Your task to perform on an android device: Open Android settings Image 0: 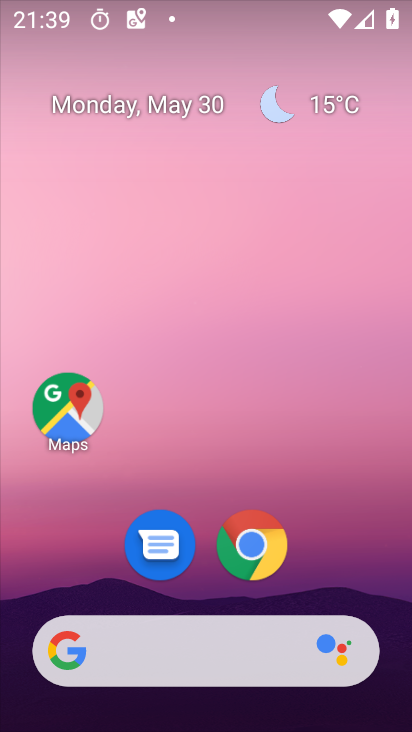
Step 0: drag from (322, 570) to (311, 73)
Your task to perform on an android device: Open Android settings Image 1: 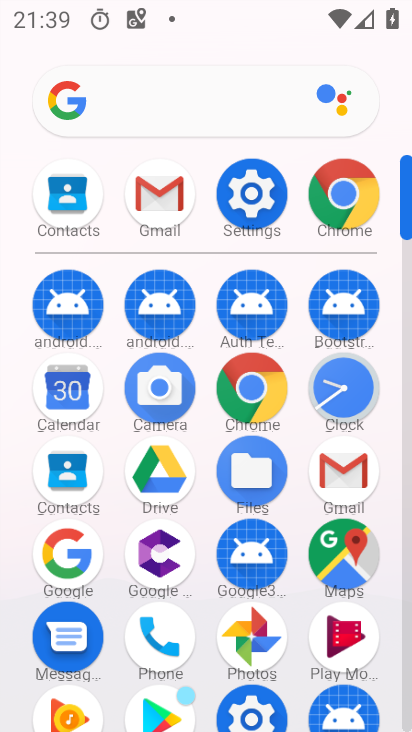
Step 1: click (255, 202)
Your task to perform on an android device: Open Android settings Image 2: 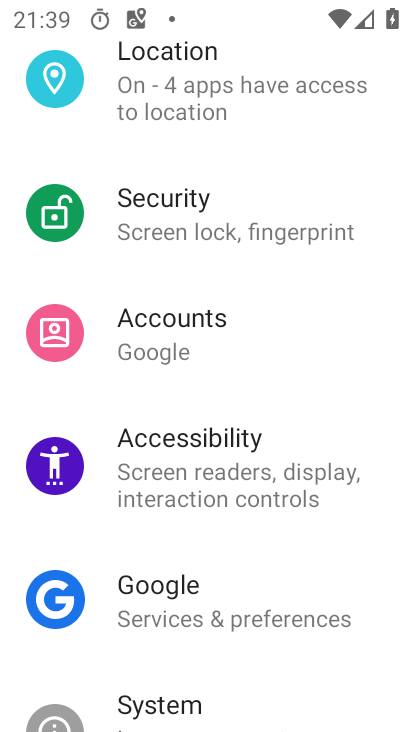
Step 2: drag from (319, 673) to (289, 347)
Your task to perform on an android device: Open Android settings Image 3: 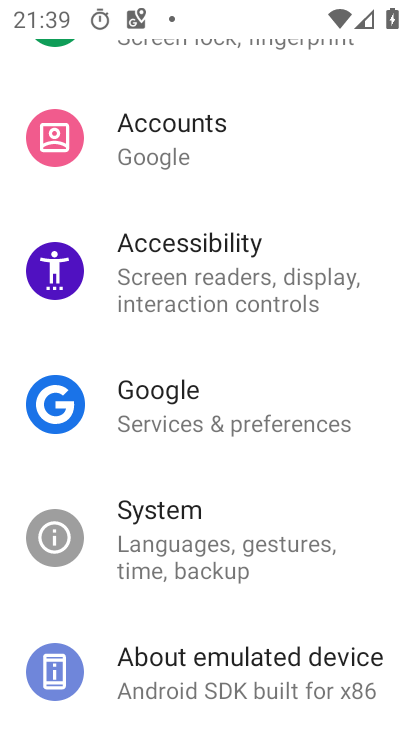
Step 3: click (234, 671)
Your task to perform on an android device: Open Android settings Image 4: 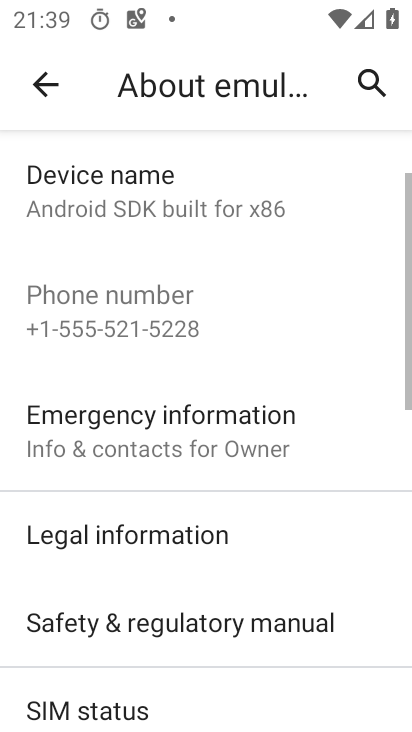
Step 4: drag from (265, 652) to (237, 276)
Your task to perform on an android device: Open Android settings Image 5: 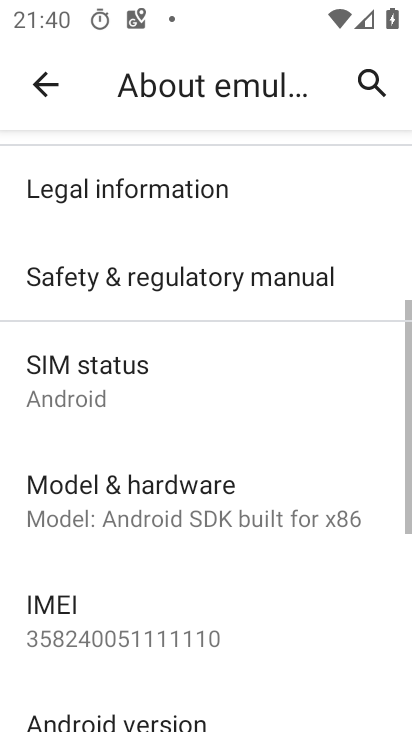
Step 5: drag from (215, 694) to (213, 466)
Your task to perform on an android device: Open Android settings Image 6: 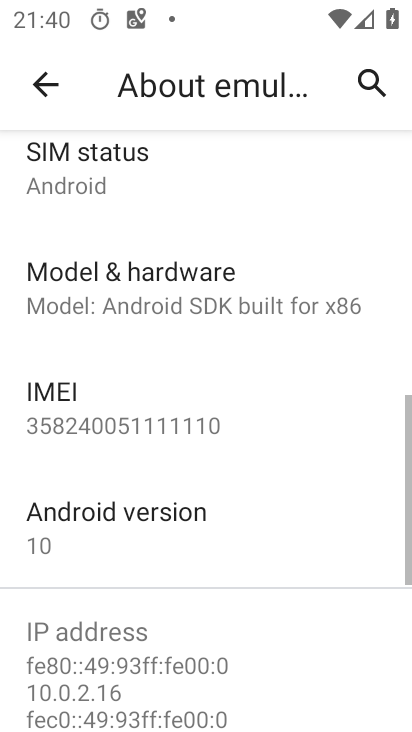
Step 6: click (114, 529)
Your task to perform on an android device: Open Android settings Image 7: 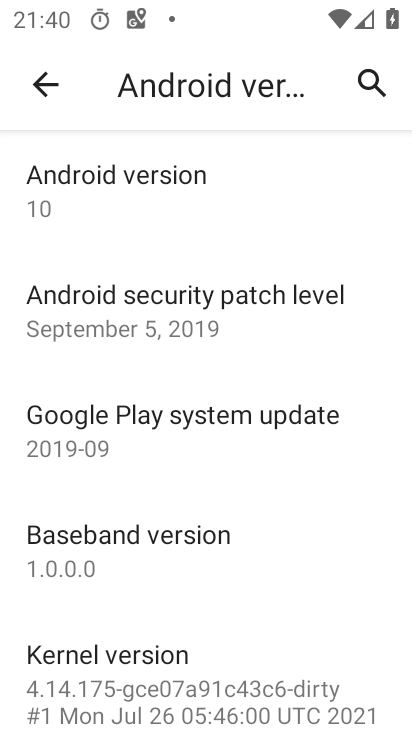
Step 7: task complete